Your task to perform on an android device: check out phone information Image 0: 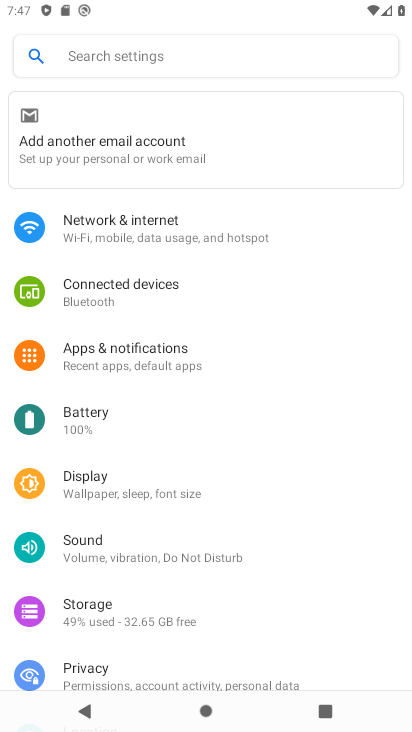
Step 0: drag from (170, 589) to (236, 285)
Your task to perform on an android device: check out phone information Image 1: 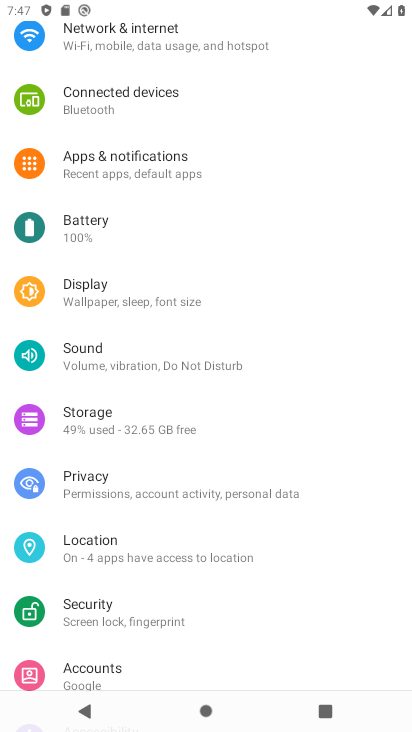
Step 1: drag from (136, 652) to (155, 609)
Your task to perform on an android device: check out phone information Image 2: 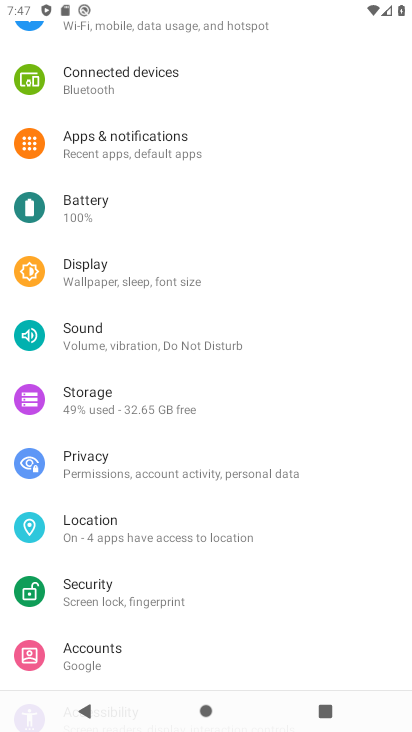
Step 2: drag from (164, 681) to (248, 59)
Your task to perform on an android device: check out phone information Image 3: 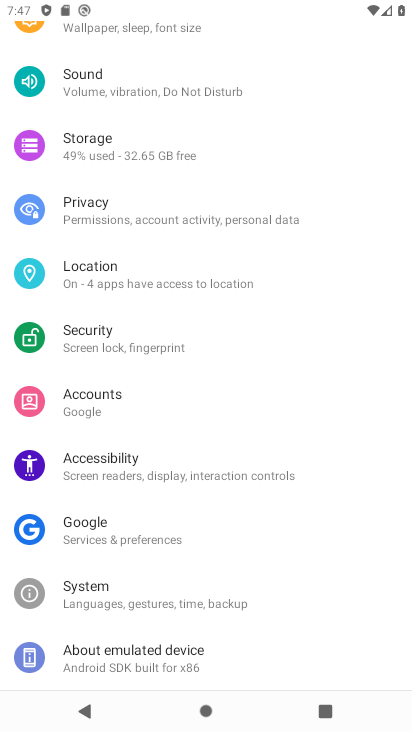
Step 3: click (140, 667)
Your task to perform on an android device: check out phone information Image 4: 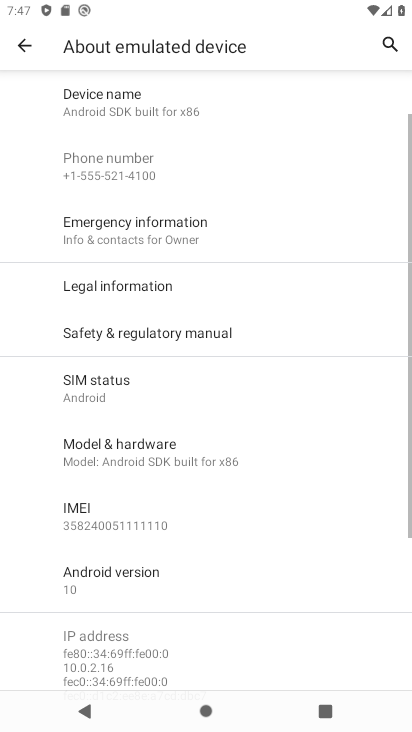
Step 4: task complete